Your task to perform on an android device: turn off improve location accuracy Image 0: 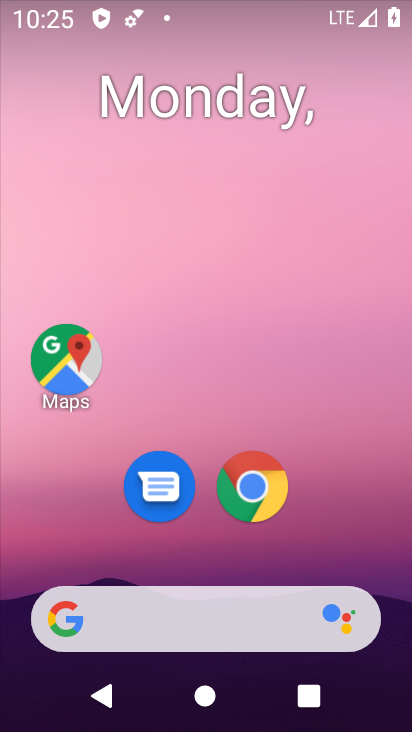
Step 0: press home button
Your task to perform on an android device: turn off improve location accuracy Image 1: 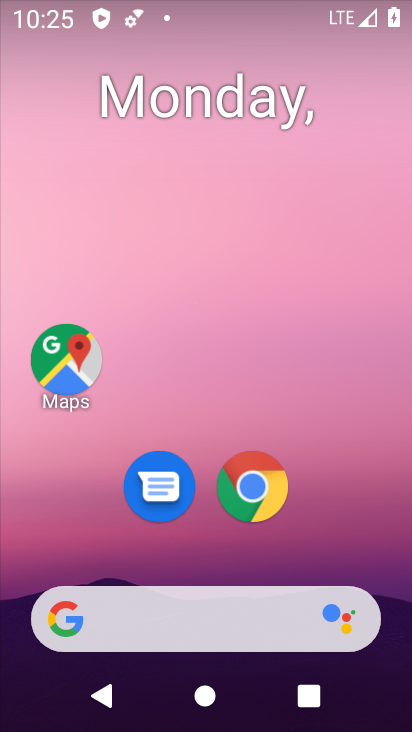
Step 1: drag from (32, 608) to (211, 131)
Your task to perform on an android device: turn off improve location accuracy Image 2: 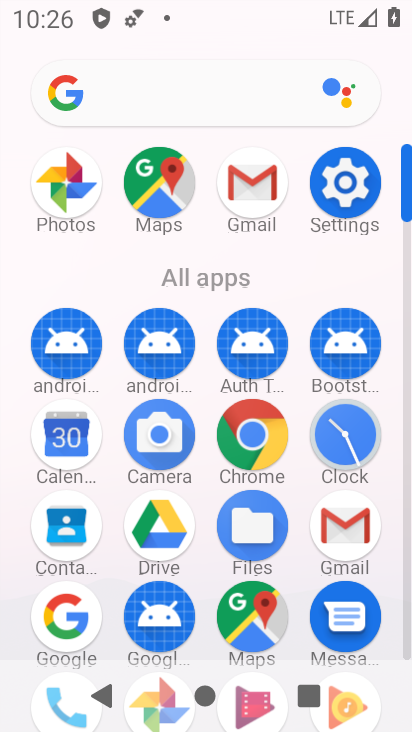
Step 2: click (332, 184)
Your task to perform on an android device: turn off improve location accuracy Image 3: 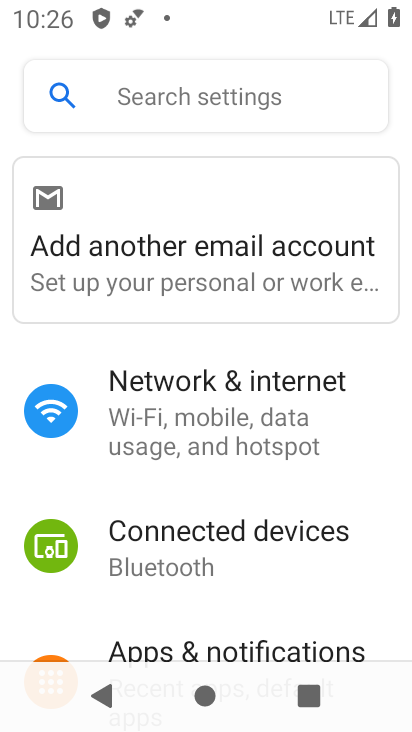
Step 3: drag from (380, 224) to (410, 388)
Your task to perform on an android device: turn off improve location accuracy Image 4: 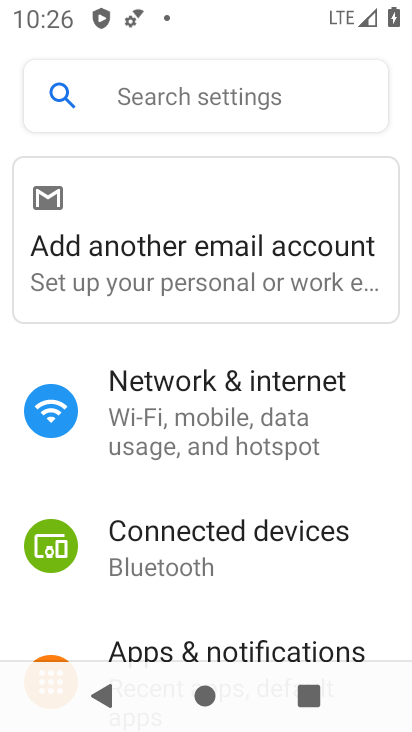
Step 4: drag from (8, 570) to (306, 177)
Your task to perform on an android device: turn off improve location accuracy Image 5: 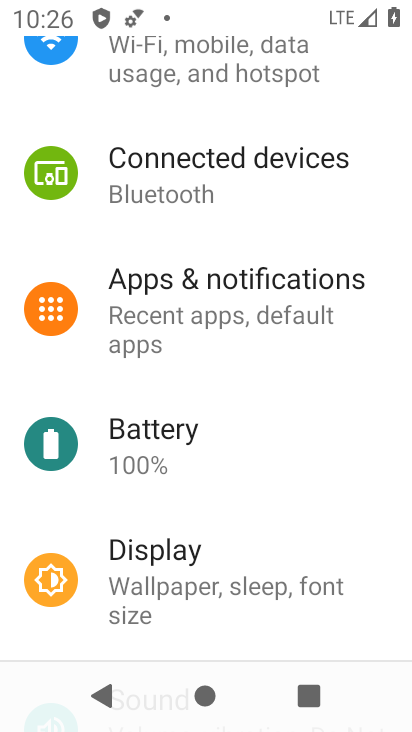
Step 5: drag from (4, 616) to (289, 187)
Your task to perform on an android device: turn off improve location accuracy Image 6: 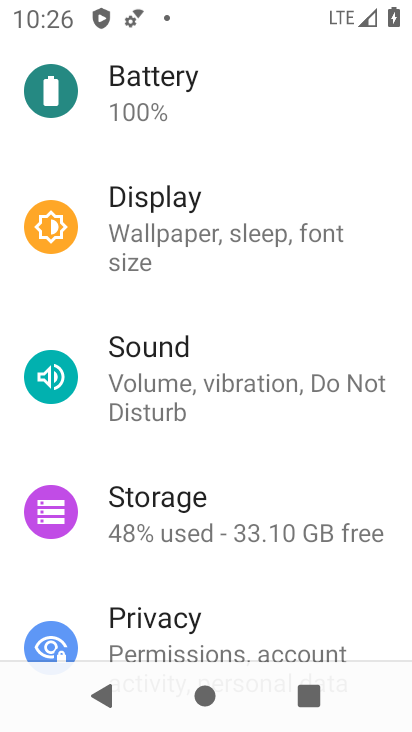
Step 6: drag from (2, 641) to (313, 260)
Your task to perform on an android device: turn off improve location accuracy Image 7: 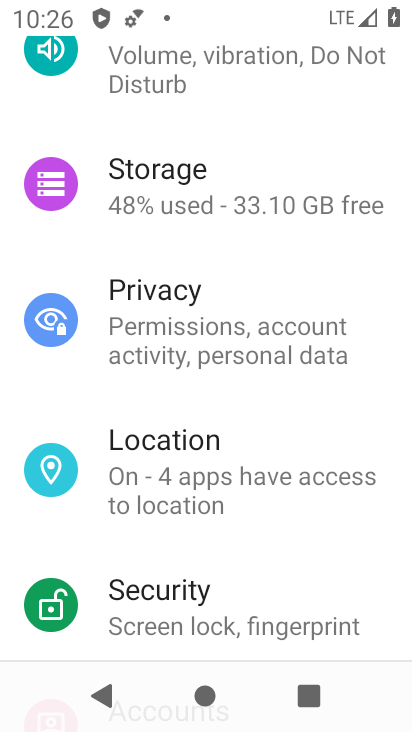
Step 7: drag from (29, 478) to (252, 251)
Your task to perform on an android device: turn off improve location accuracy Image 8: 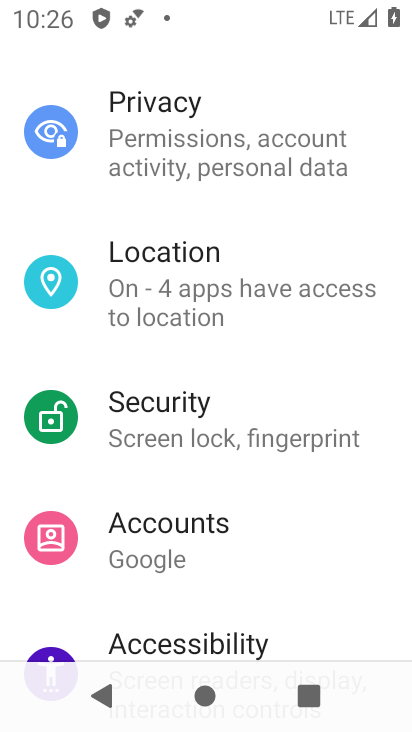
Step 8: drag from (15, 561) to (213, 288)
Your task to perform on an android device: turn off improve location accuracy Image 9: 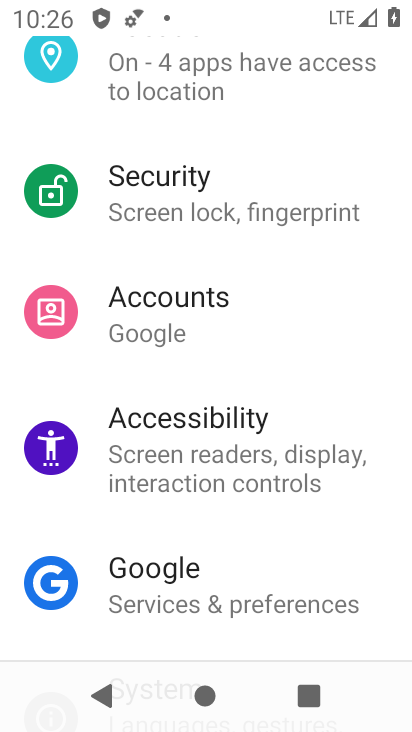
Step 9: click (196, 76)
Your task to perform on an android device: turn off improve location accuracy Image 10: 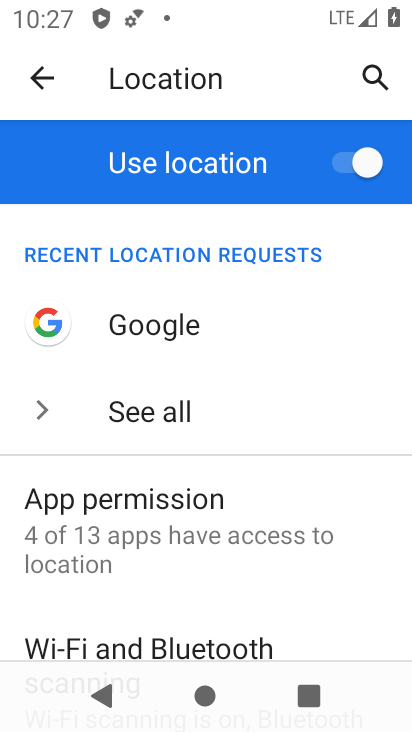
Step 10: drag from (138, 605) to (324, 219)
Your task to perform on an android device: turn off improve location accuracy Image 11: 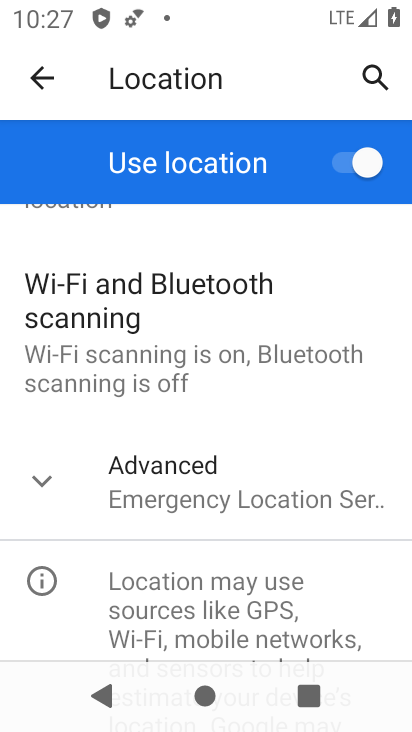
Step 11: click (186, 494)
Your task to perform on an android device: turn off improve location accuracy Image 12: 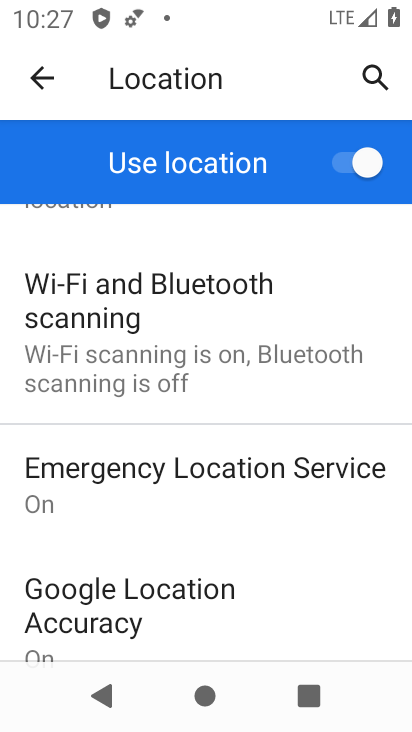
Step 12: drag from (16, 516) to (162, 224)
Your task to perform on an android device: turn off improve location accuracy Image 13: 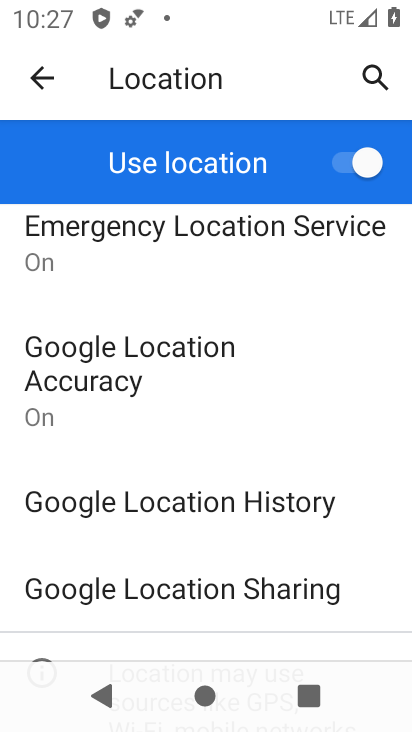
Step 13: click (86, 557)
Your task to perform on an android device: turn off improve location accuracy Image 14: 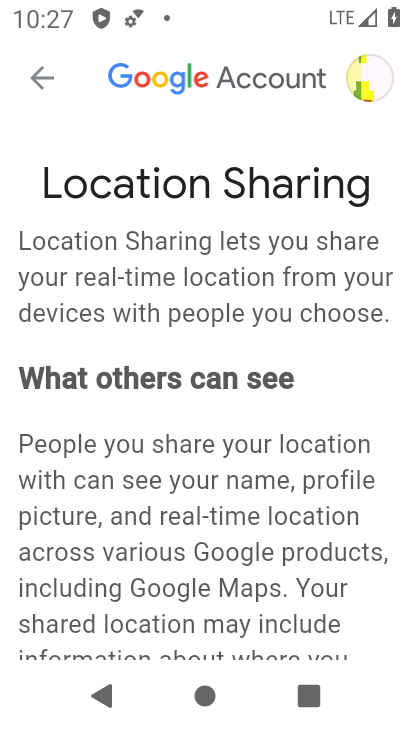
Step 14: press back button
Your task to perform on an android device: turn off improve location accuracy Image 15: 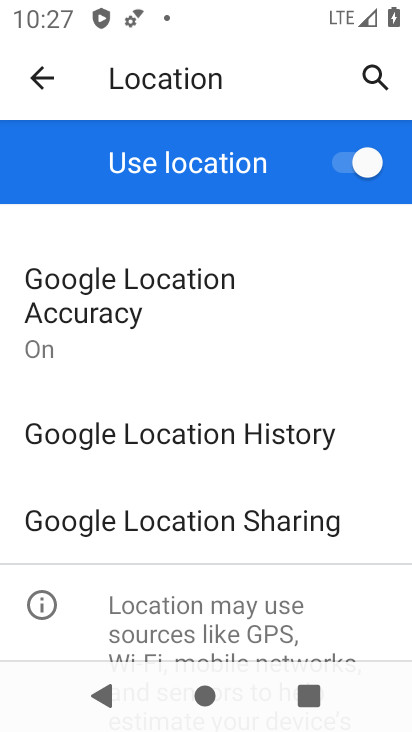
Step 15: click (90, 304)
Your task to perform on an android device: turn off improve location accuracy Image 16: 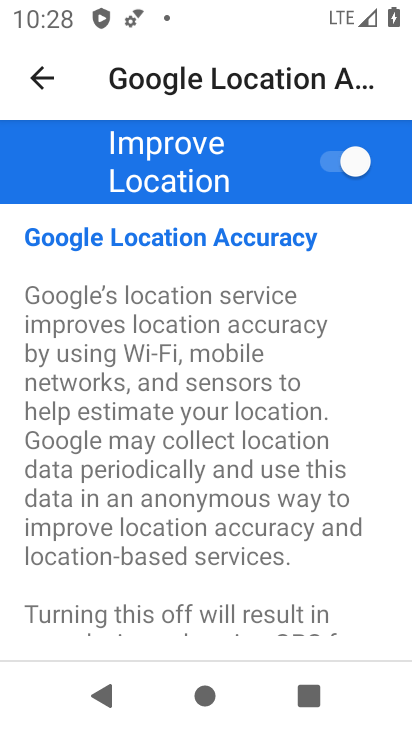
Step 16: click (360, 160)
Your task to perform on an android device: turn off improve location accuracy Image 17: 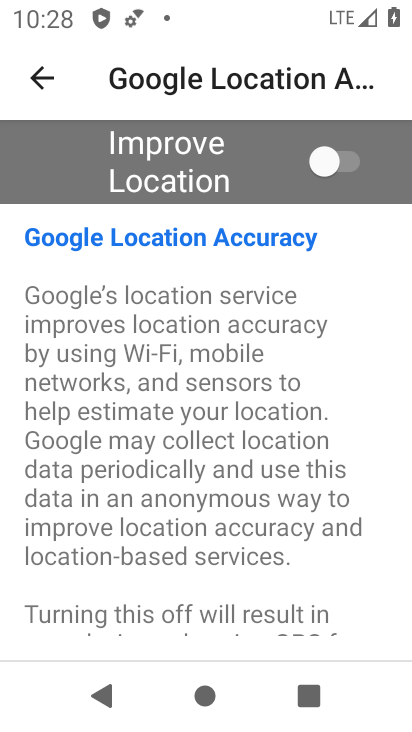
Step 17: task complete